Your task to perform on an android device: open app "Mercado Libre" (install if not already installed) Image 0: 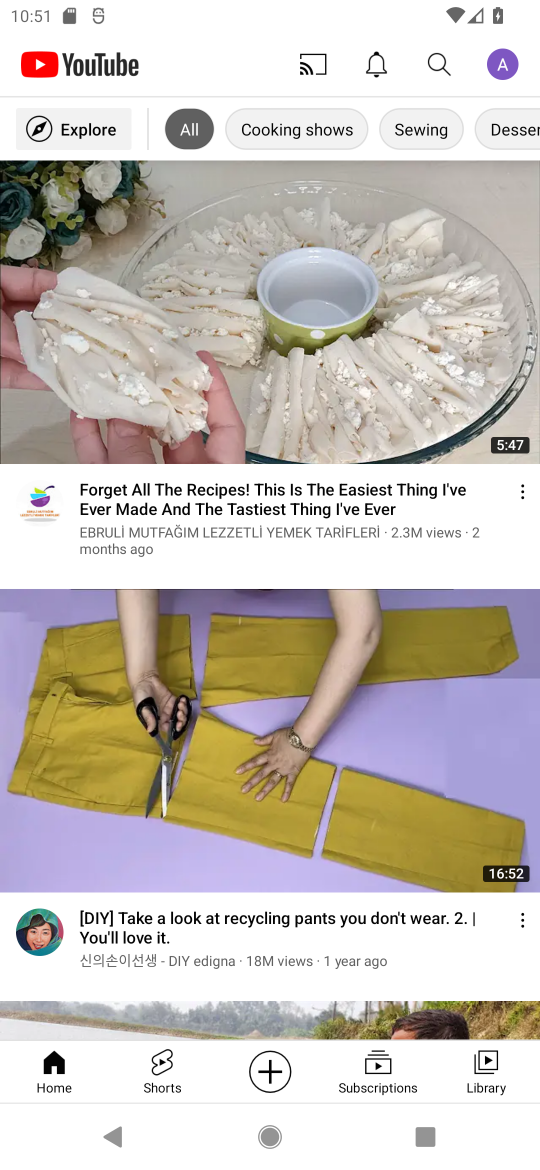
Step 0: press back button
Your task to perform on an android device: open app "Mercado Libre" (install if not already installed) Image 1: 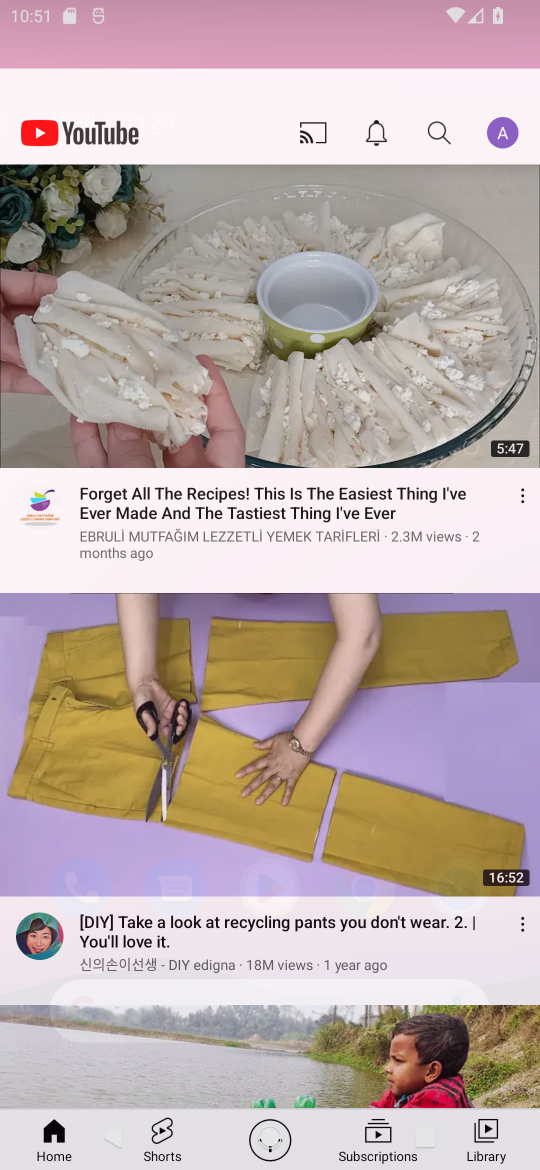
Step 1: press home button
Your task to perform on an android device: open app "Mercado Libre" (install if not already installed) Image 2: 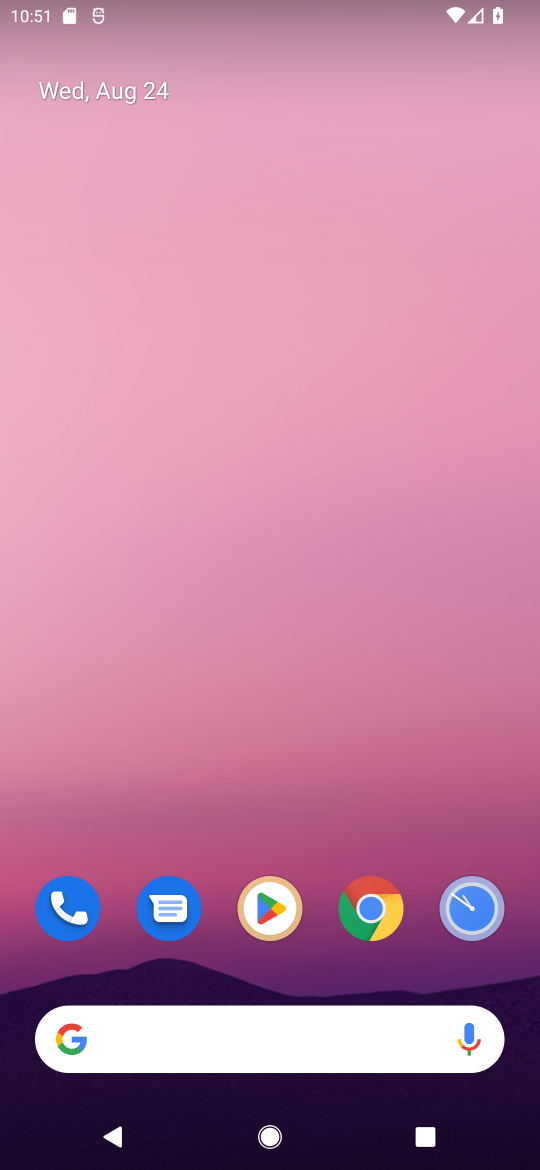
Step 2: click (266, 918)
Your task to perform on an android device: open app "Mercado Libre" (install if not already installed) Image 3: 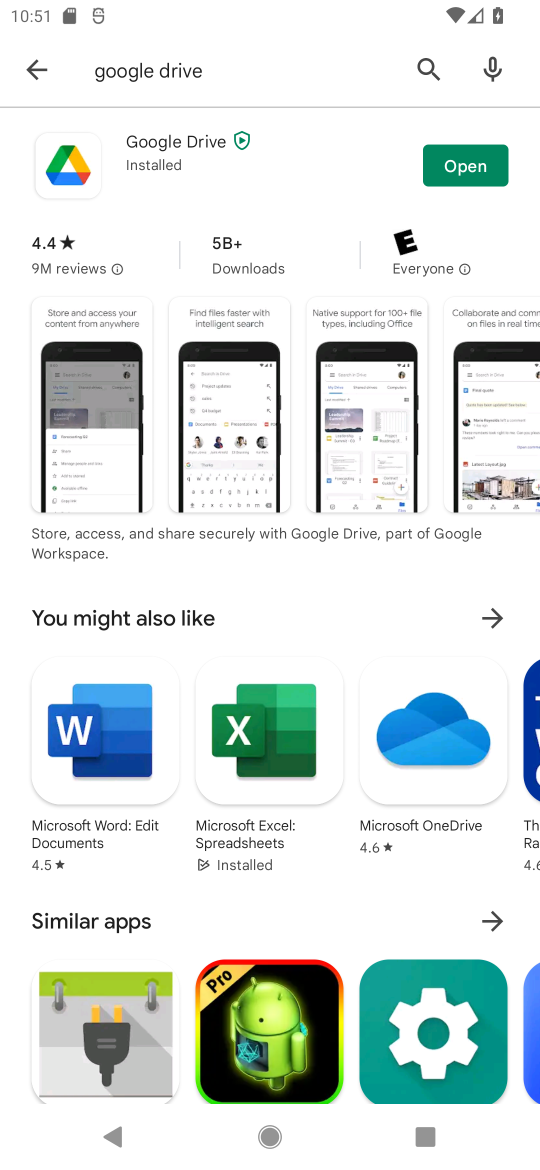
Step 3: click (43, 68)
Your task to perform on an android device: open app "Mercado Libre" (install if not already installed) Image 4: 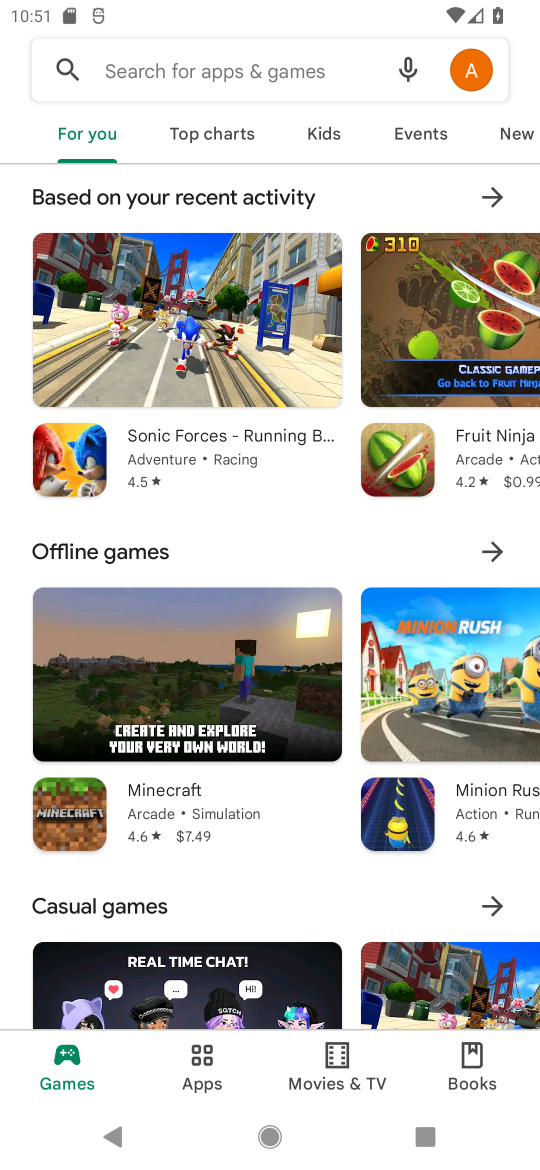
Step 4: click (123, 76)
Your task to perform on an android device: open app "Mercado Libre" (install if not already installed) Image 5: 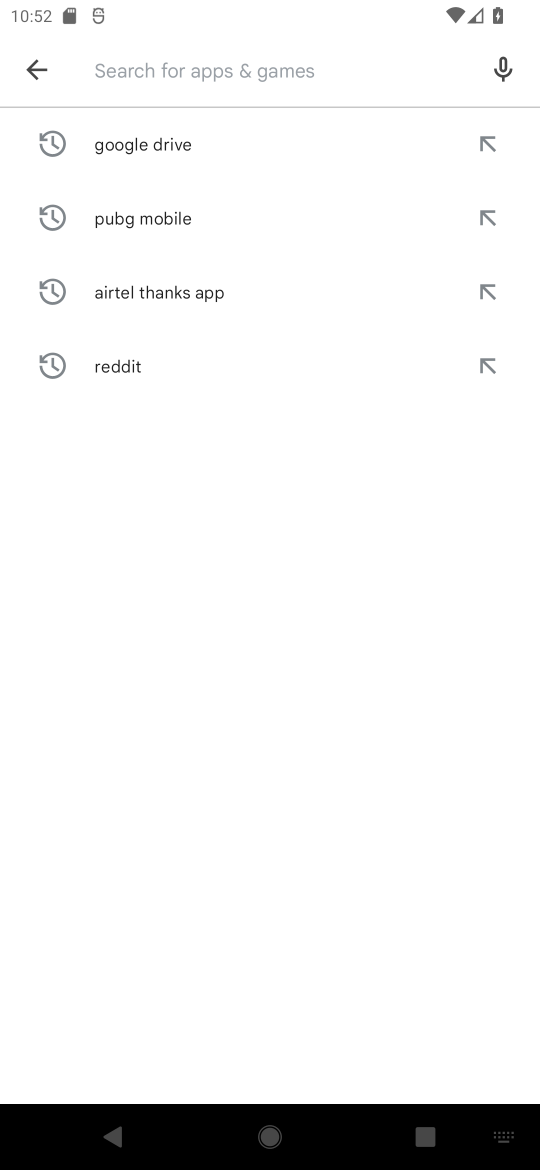
Step 5: type "Mercado Libre"
Your task to perform on an android device: open app "Mercado Libre" (install if not already installed) Image 6: 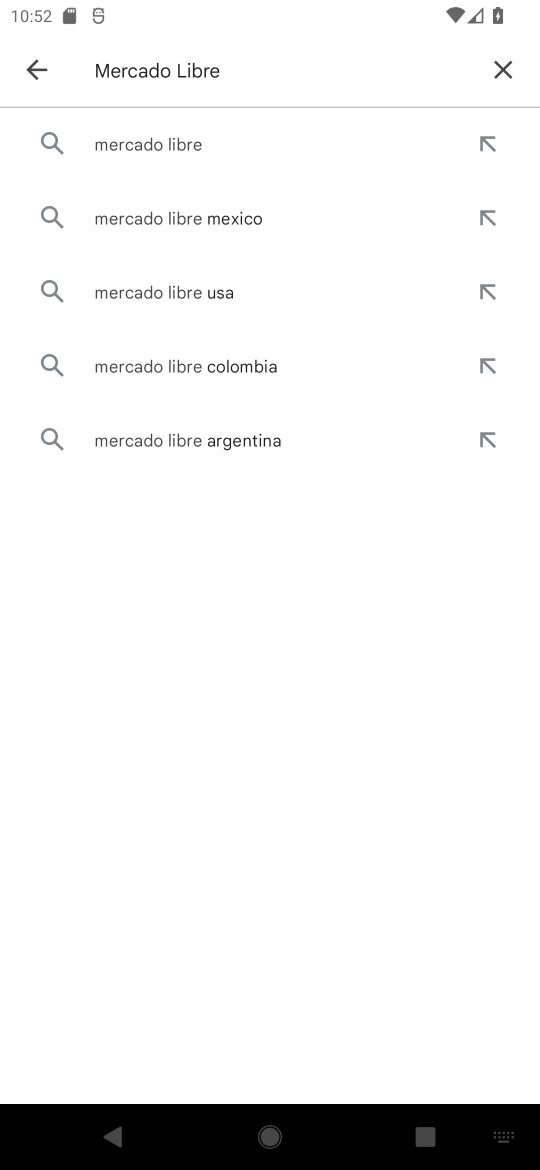
Step 6: click (171, 126)
Your task to perform on an android device: open app "Mercado Libre" (install if not already installed) Image 7: 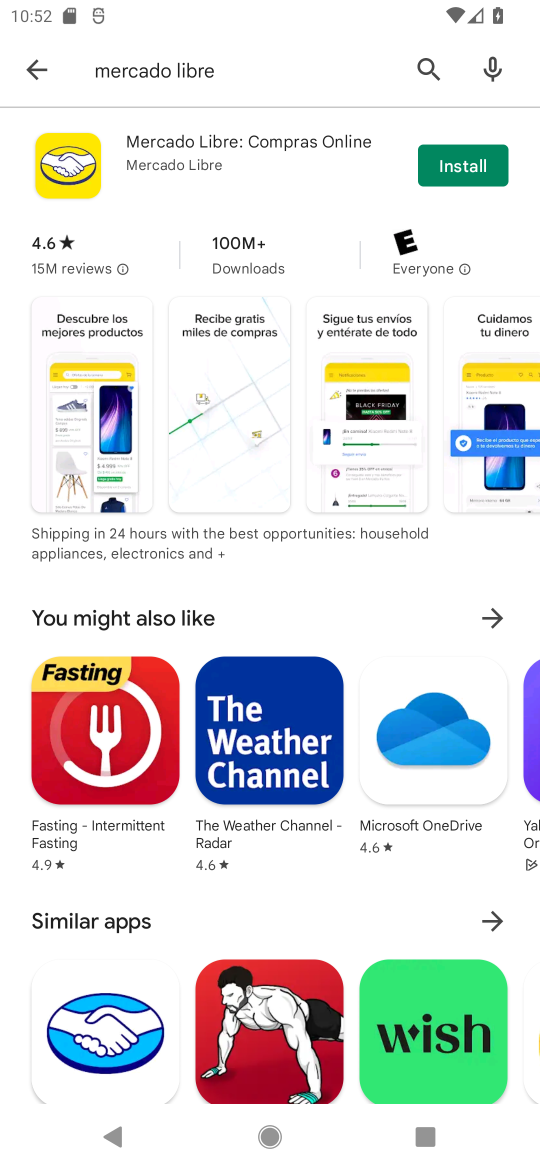
Step 7: click (481, 164)
Your task to perform on an android device: open app "Mercado Libre" (install if not already installed) Image 8: 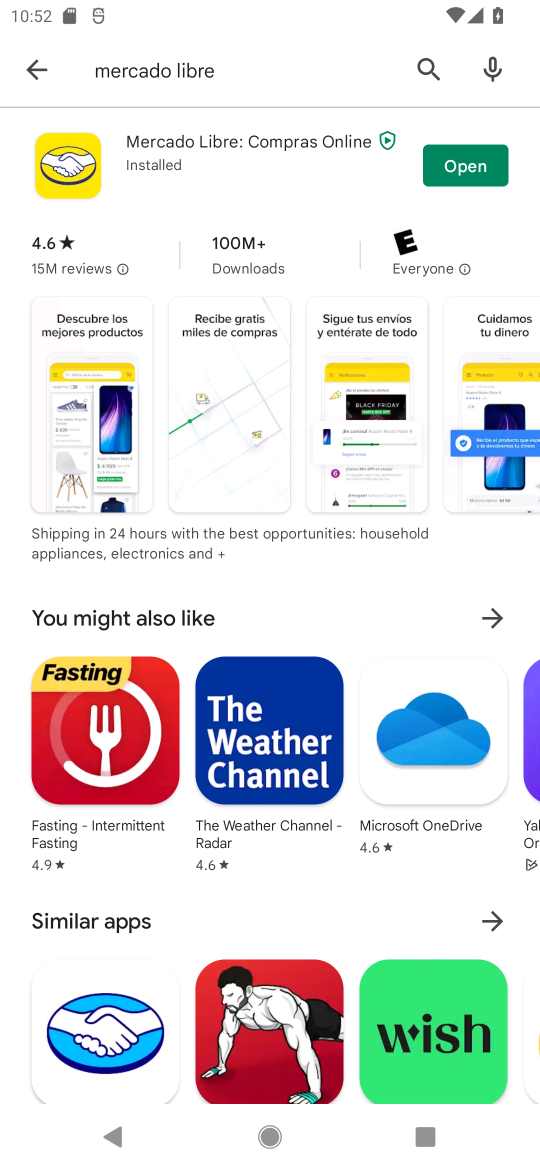
Step 8: click (481, 164)
Your task to perform on an android device: open app "Mercado Libre" (install if not already installed) Image 9: 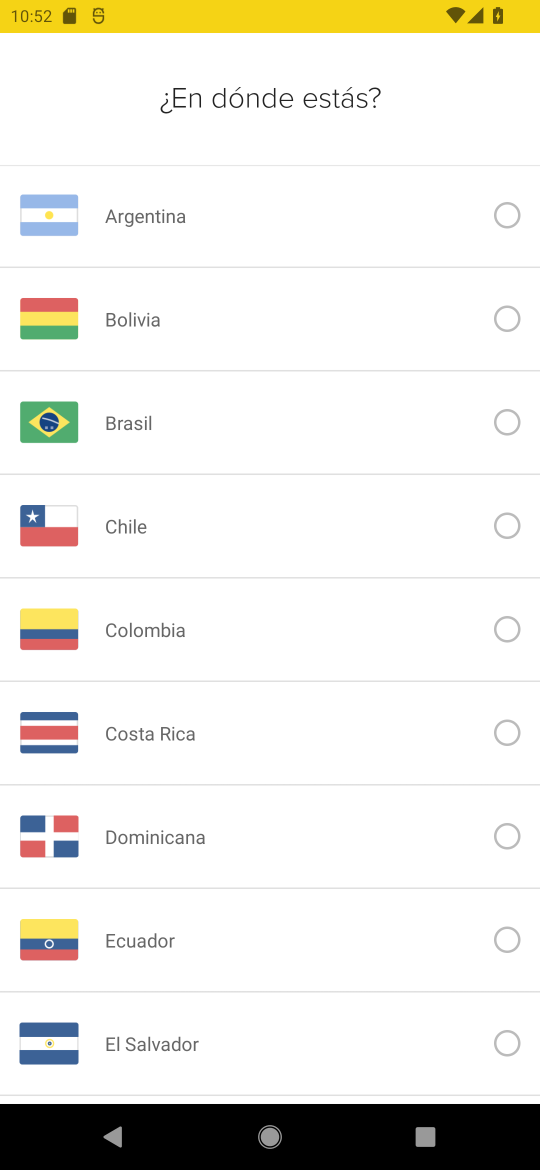
Step 9: task complete